Your task to perform on an android device: Add asus zenbook to the cart on bestbuy.com, then select checkout. Image 0: 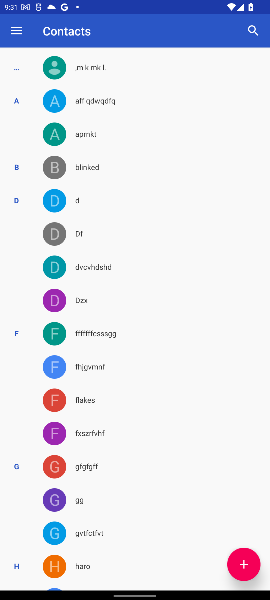
Step 0: press home button
Your task to perform on an android device: Add asus zenbook to the cart on bestbuy.com, then select checkout. Image 1: 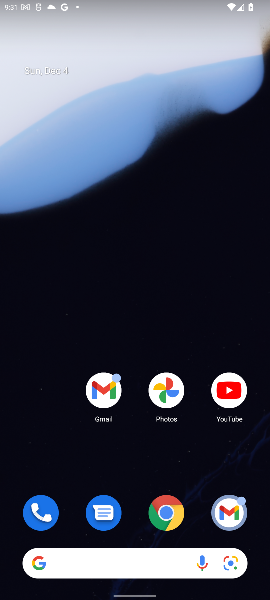
Step 1: click (168, 509)
Your task to perform on an android device: Add asus zenbook to the cart on bestbuy.com, then select checkout. Image 2: 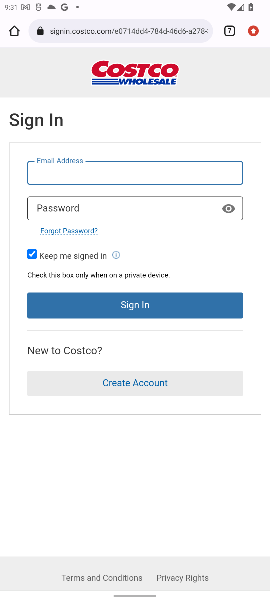
Step 2: click (231, 29)
Your task to perform on an android device: Add asus zenbook to the cart on bestbuy.com, then select checkout. Image 3: 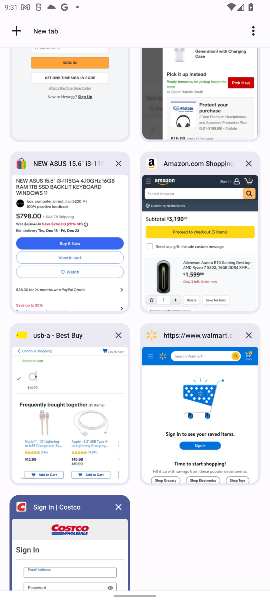
Step 3: click (79, 365)
Your task to perform on an android device: Add asus zenbook to the cart on bestbuy.com, then select checkout. Image 4: 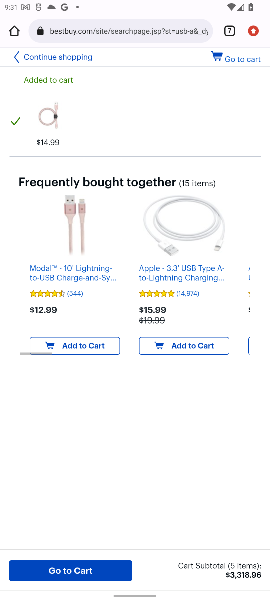
Step 4: click (85, 52)
Your task to perform on an android device: Add asus zenbook to the cart on bestbuy.com, then select checkout. Image 5: 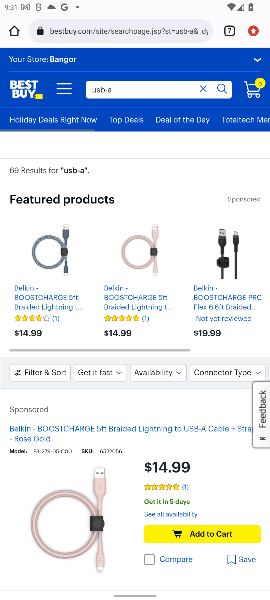
Step 5: click (203, 89)
Your task to perform on an android device: Add asus zenbook to the cart on bestbuy.com, then select checkout. Image 6: 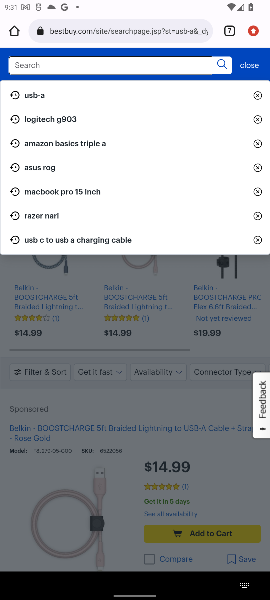
Step 6: type "asus zenbook"
Your task to perform on an android device: Add asus zenbook to the cart on bestbuy.com, then select checkout. Image 7: 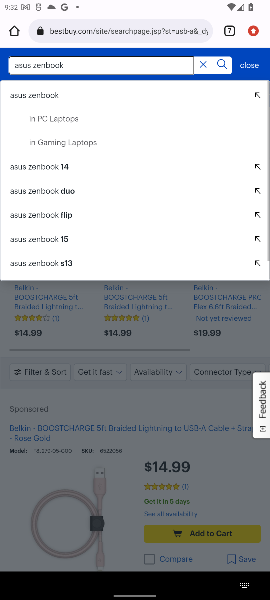
Step 7: click (50, 96)
Your task to perform on an android device: Add asus zenbook to the cart on bestbuy.com, then select checkout. Image 8: 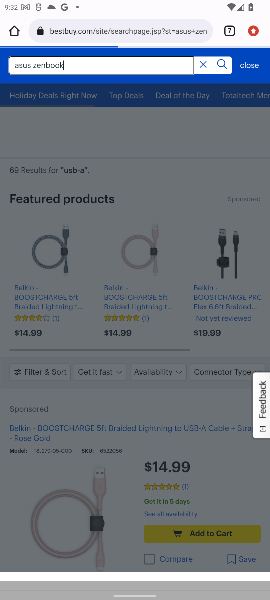
Step 8: click (221, 61)
Your task to perform on an android device: Add asus zenbook to the cart on bestbuy.com, then select checkout. Image 9: 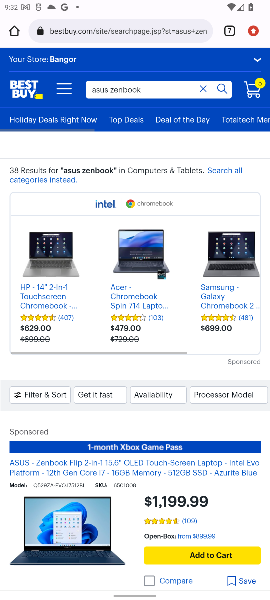
Step 9: click (210, 562)
Your task to perform on an android device: Add asus zenbook to the cart on bestbuy.com, then select checkout. Image 10: 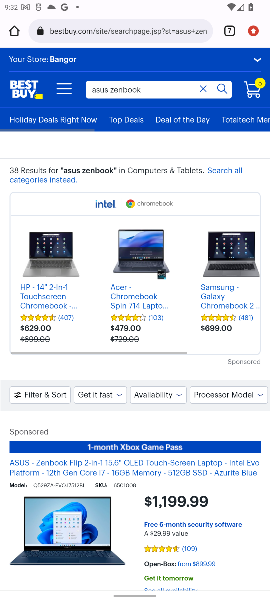
Step 10: click (256, 82)
Your task to perform on an android device: Add asus zenbook to the cart on bestbuy.com, then select checkout. Image 11: 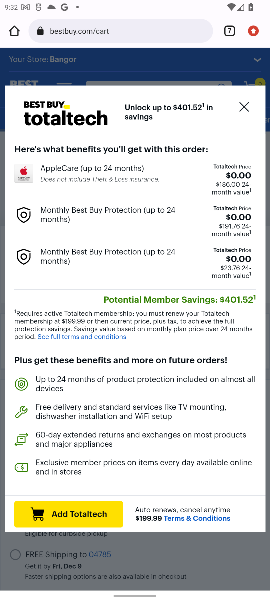
Step 11: click (149, 281)
Your task to perform on an android device: Add asus zenbook to the cart on bestbuy.com, then select checkout. Image 12: 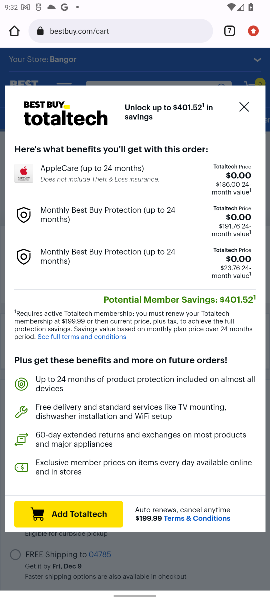
Step 12: click (240, 106)
Your task to perform on an android device: Add asus zenbook to the cart on bestbuy.com, then select checkout. Image 13: 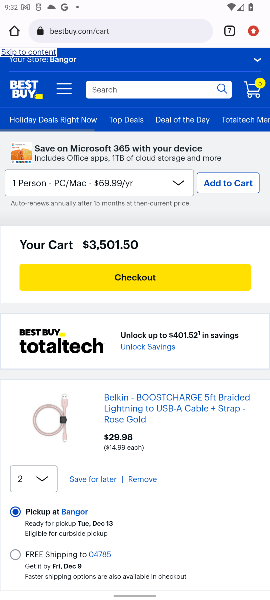
Step 13: click (143, 279)
Your task to perform on an android device: Add asus zenbook to the cart on bestbuy.com, then select checkout. Image 14: 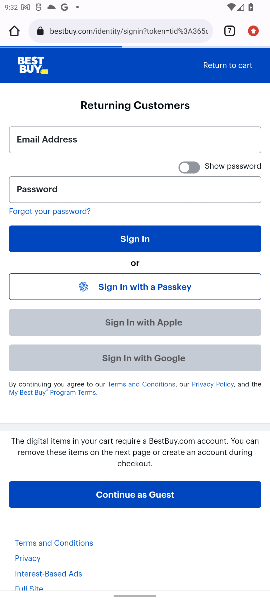
Step 14: task complete